Your task to perform on an android device: open chrome and create a bookmark for the current page Image 0: 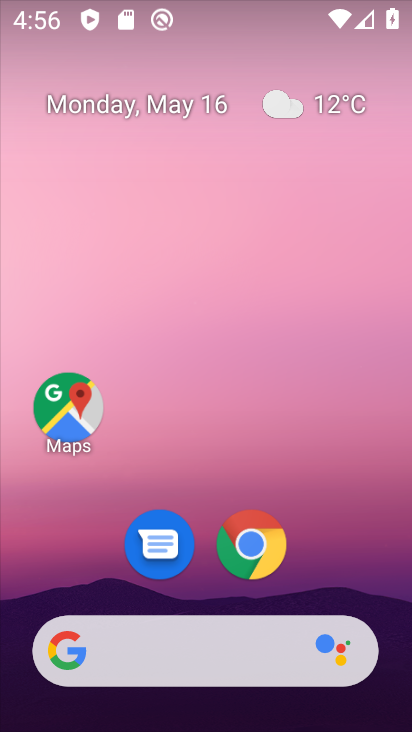
Step 0: click (254, 541)
Your task to perform on an android device: open chrome and create a bookmark for the current page Image 1: 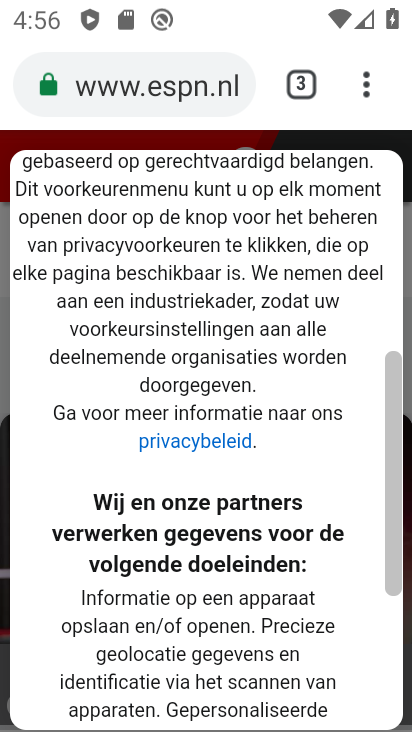
Step 1: click (365, 83)
Your task to perform on an android device: open chrome and create a bookmark for the current page Image 2: 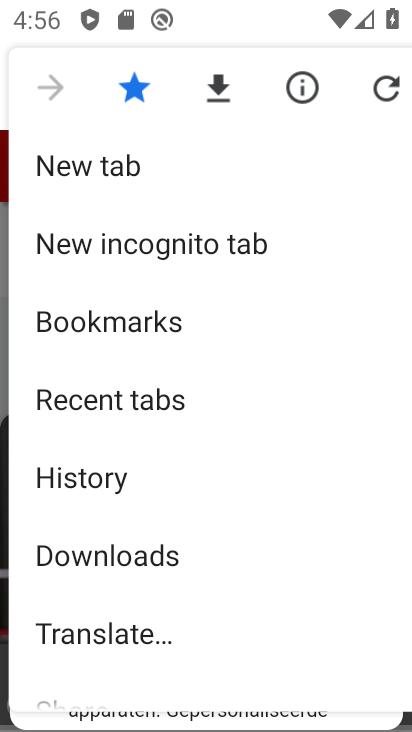
Step 2: click (139, 89)
Your task to perform on an android device: open chrome and create a bookmark for the current page Image 3: 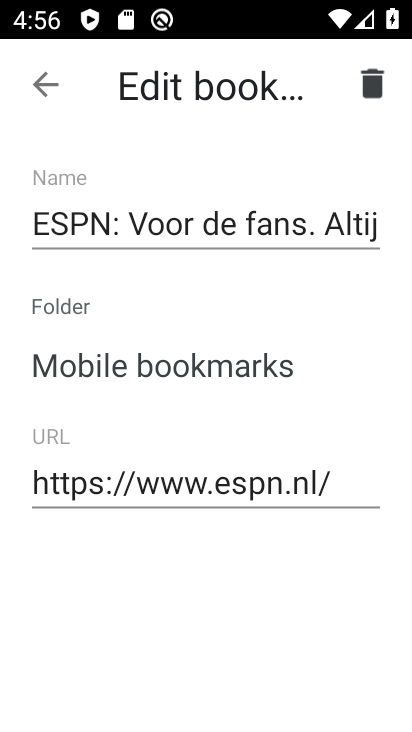
Step 3: task complete